Your task to perform on an android device: Go to battery settings Image 0: 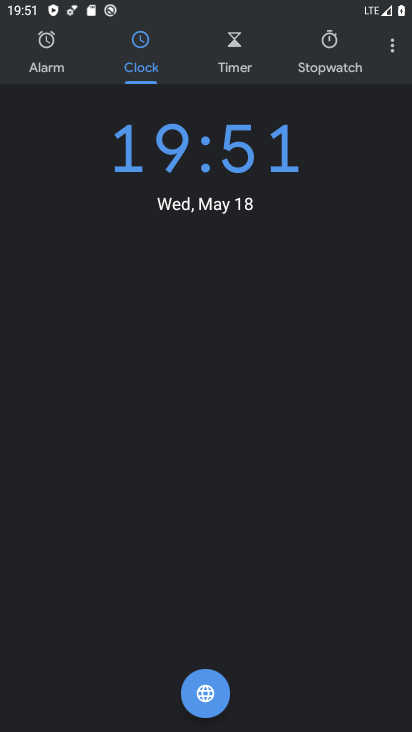
Step 0: press home button
Your task to perform on an android device: Go to battery settings Image 1: 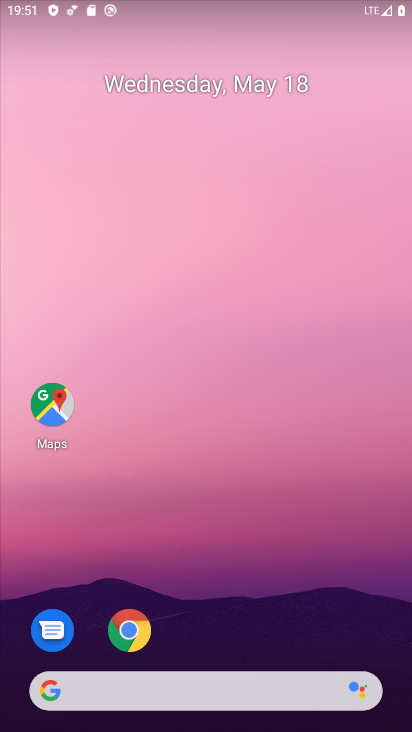
Step 1: drag from (176, 699) to (350, 96)
Your task to perform on an android device: Go to battery settings Image 2: 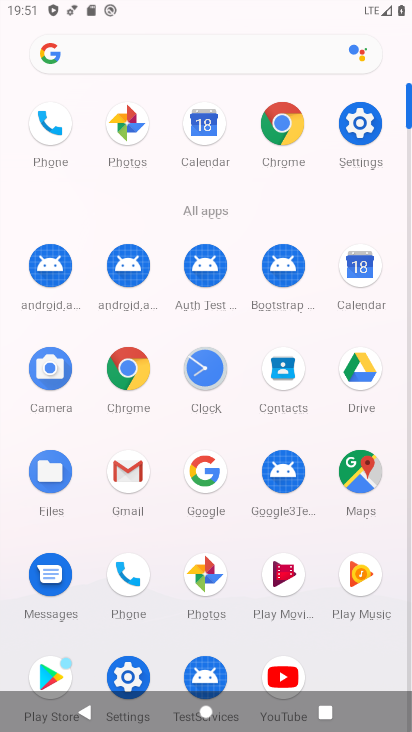
Step 2: click (349, 130)
Your task to perform on an android device: Go to battery settings Image 3: 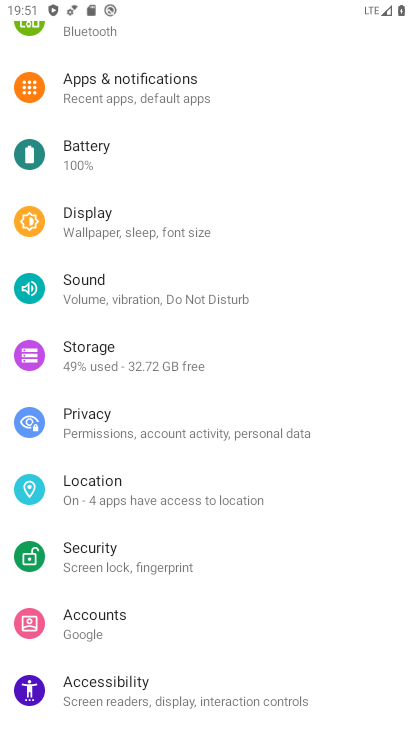
Step 3: click (89, 150)
Your task to perform on an android device: Go to battery settings Image 4: 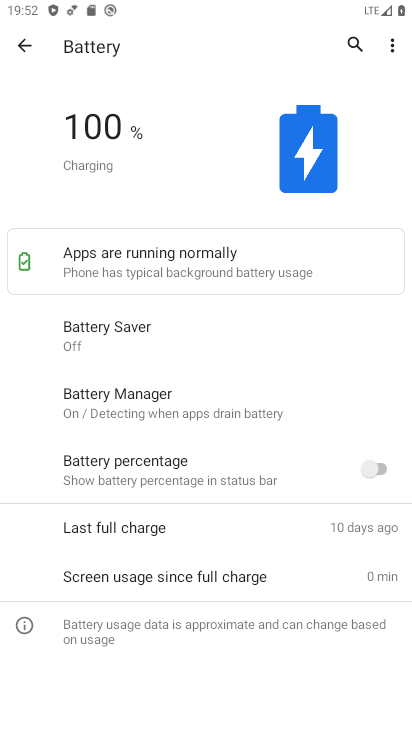
Step 4: task complete